Your task to perform on an android device: Go to calendar. Show me events next week Image 0: 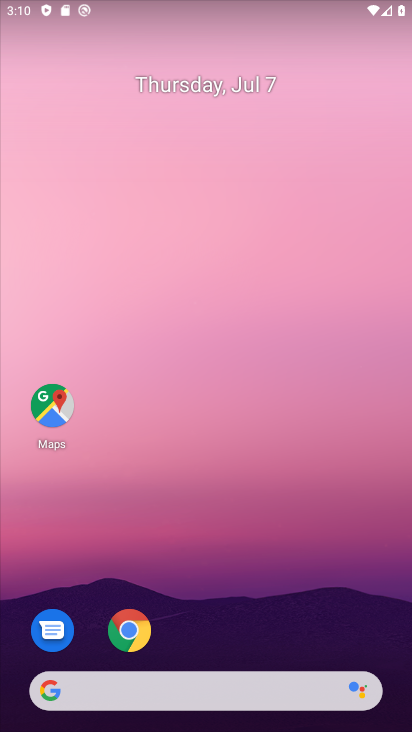
Step 0: drag from (334, 629) to (339, 165)
Your task to perform on an android device: Go to calendar. Show me events next week Image 1: 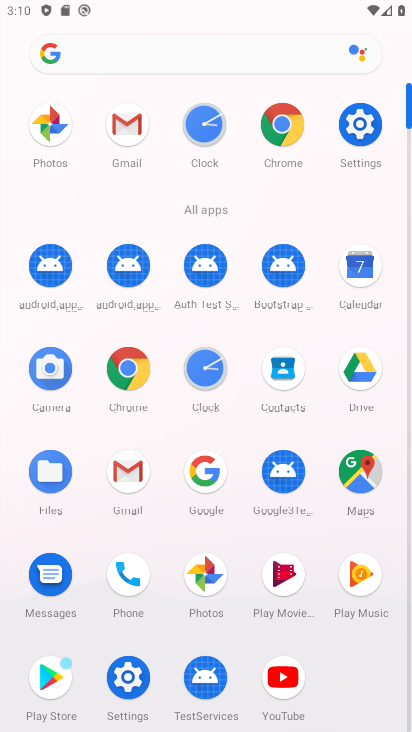
Step 1: click (360, 275)
Your task to perform on an android device: Go to calendar. Show me events next week Image 2: 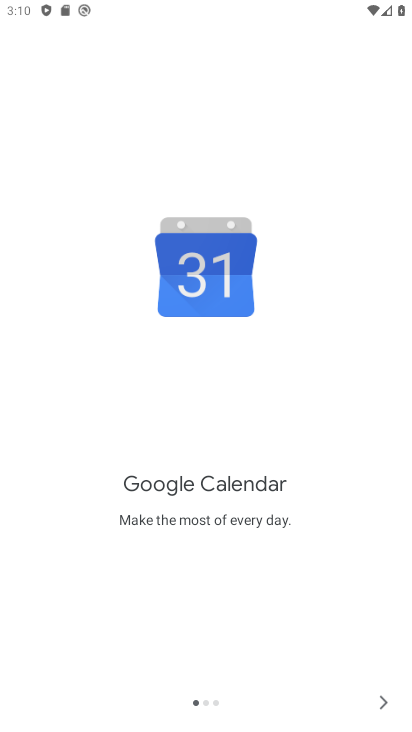
Step 2: click (371, 699)
Your task to perform on an android device: Go to calendar. Show me events next week Image 3: 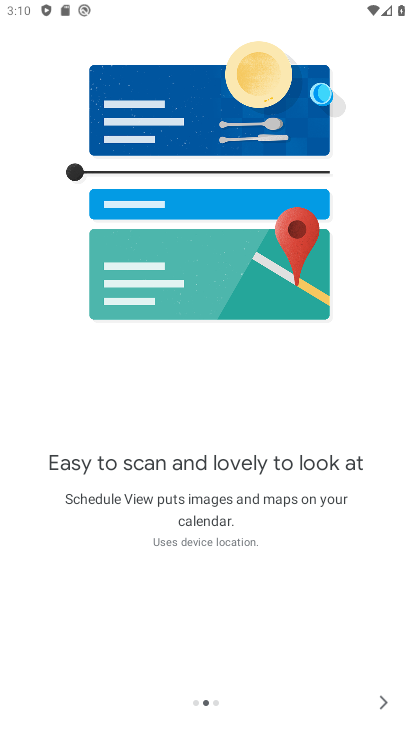
Step 3: click (371, 699)
Your task to perform on an android device: Go to calendar. Show me events next week Image 4: 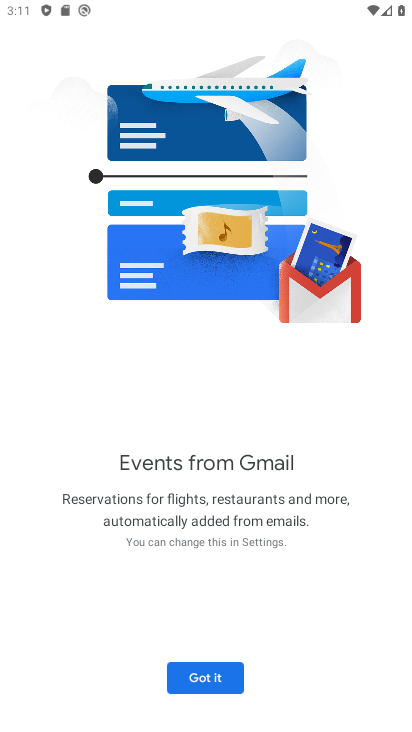
Step 4: click (220, 677)
Your task to perform on an android device: Go to calendar. Show me events next week Image 5: 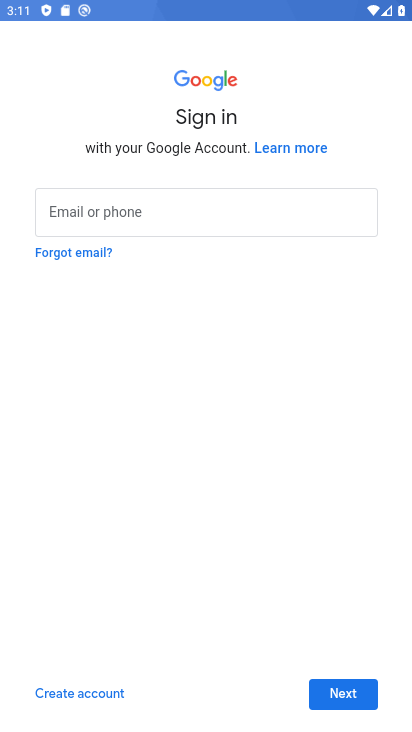
Step 5: click (337, 689)
Your task to perform on an android device: Go to calendar. Show me events next week Image 6: 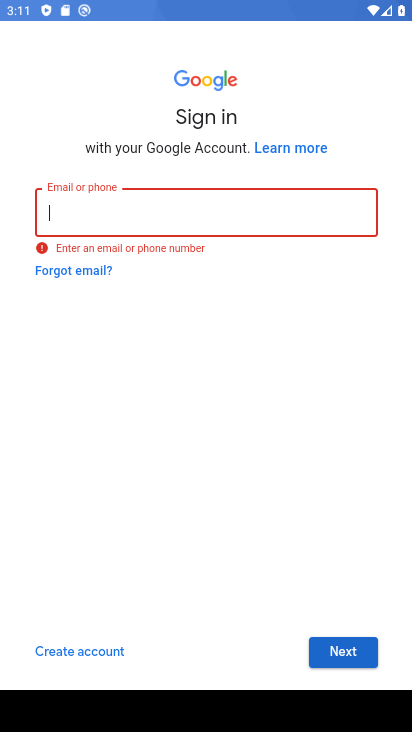
Step 6: task complete